Your task to perform on an android device: Open Wikipedia Image 0: 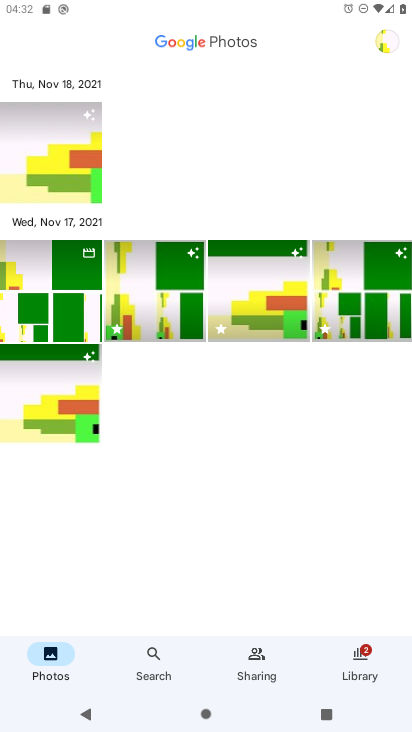
Step 0: press home button
Your task to perform on an android device: Open Wikipedia Image 1: 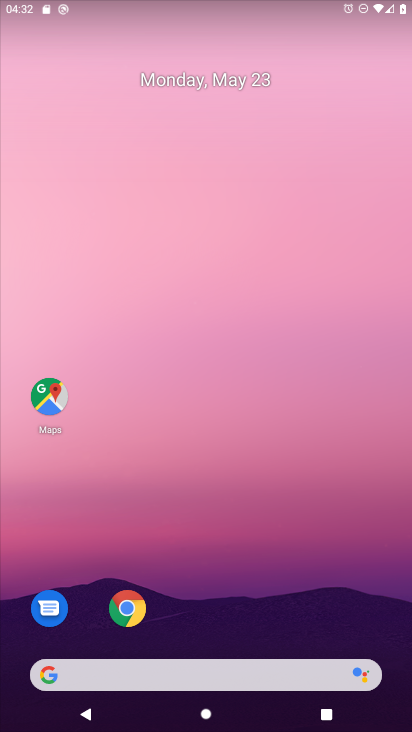
Step 1: click (126, 608)
Your task to perform on an android device: Open Wikipedia Image 2: 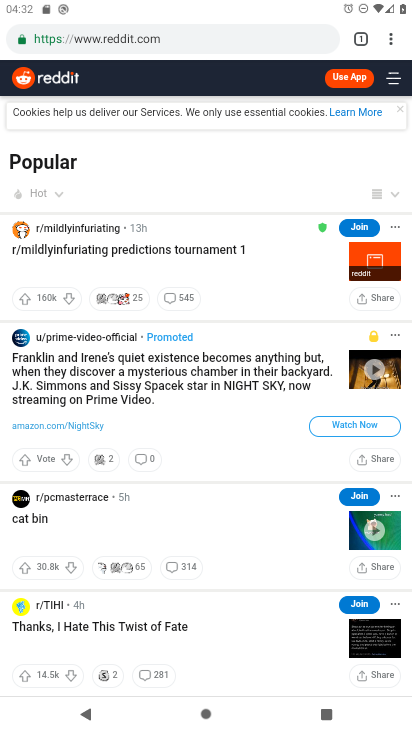
Step 2: click (181, 26)
Your task to perform on an android device: Open Wikipedia Image 3: 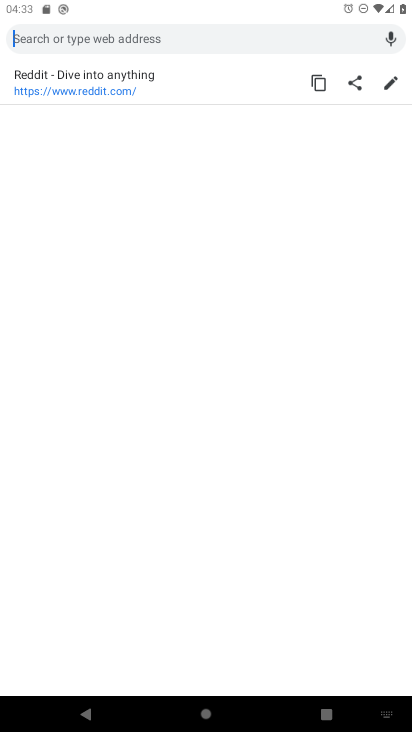
Step 3: type "Wikipedia"
Your task to perform on an android device: Open Wikipedia Image 4: 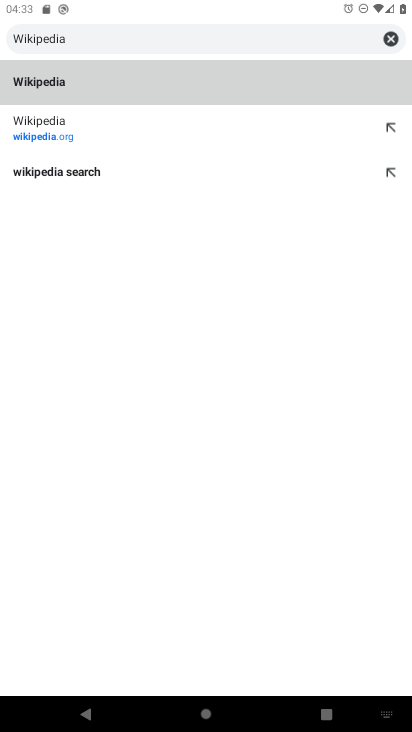
Step 4: click (98, 80)
Your task to perform on an android device: Open Wikipedia Image 5: 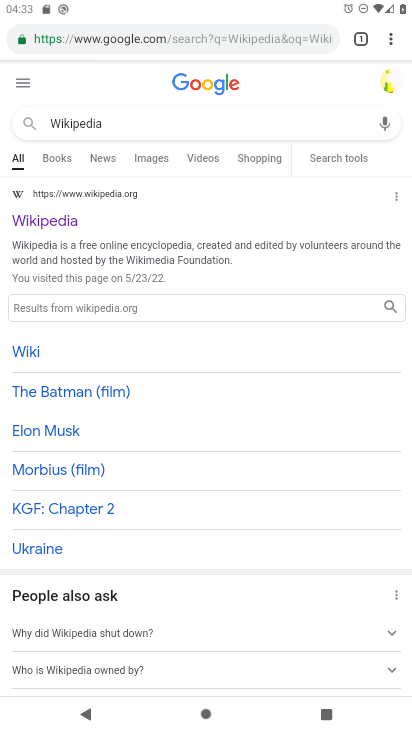
Step 5: click (46, 228)
Your task to perform on an android device: Open Wikipedia Image 6: 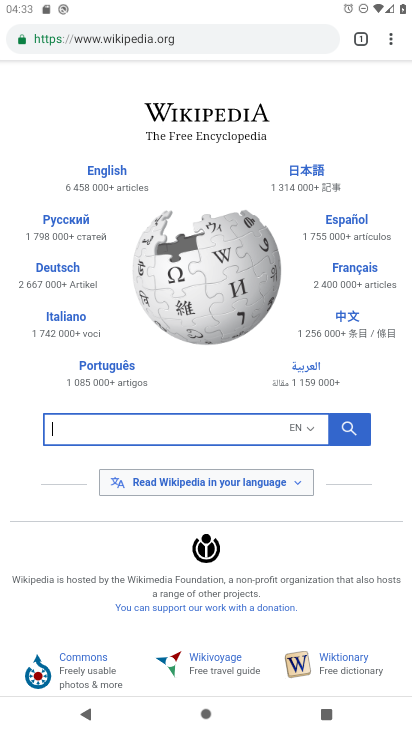
Step 6: task complete